Your task to perform on an android device: Add dell alienware to the cart on amazon Image 0: 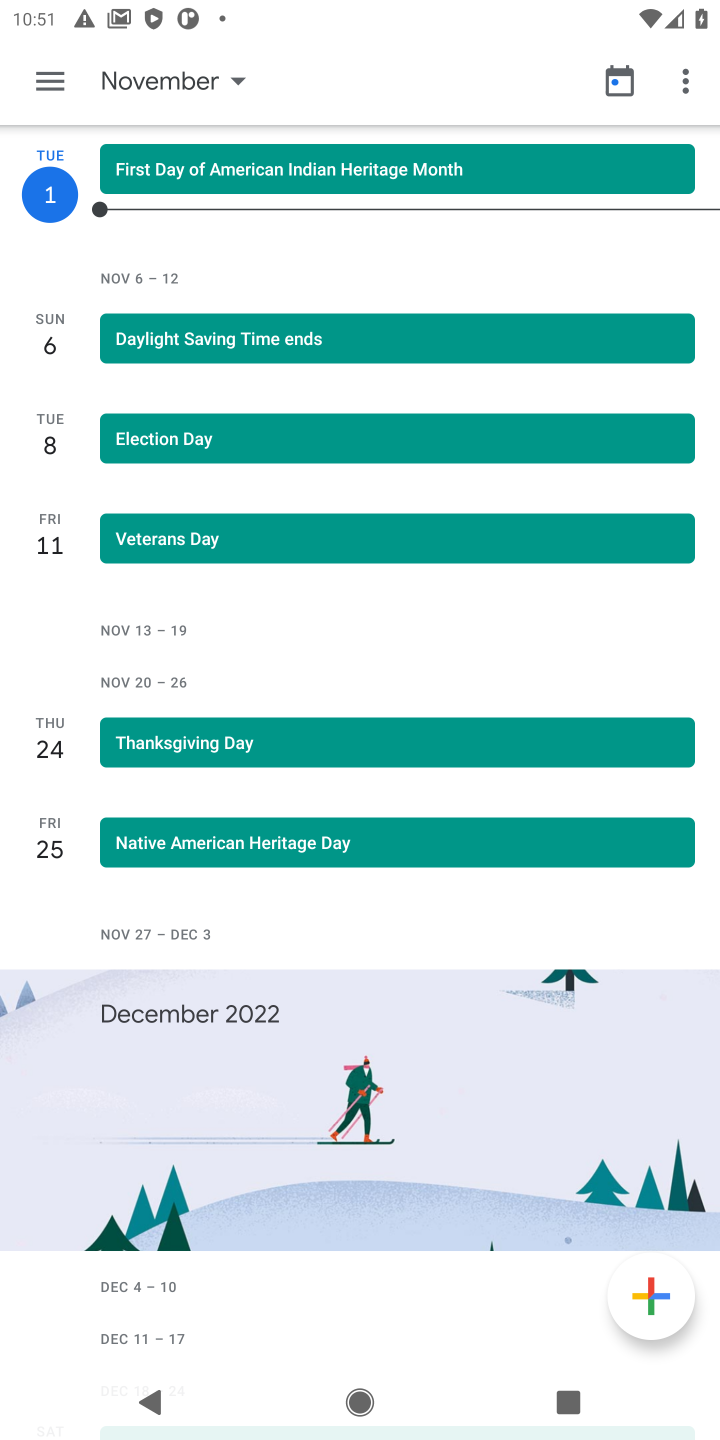
Step 0: press home button
Your task to perform on an android device: Add dell alienware to the cart on amazon Image 1: 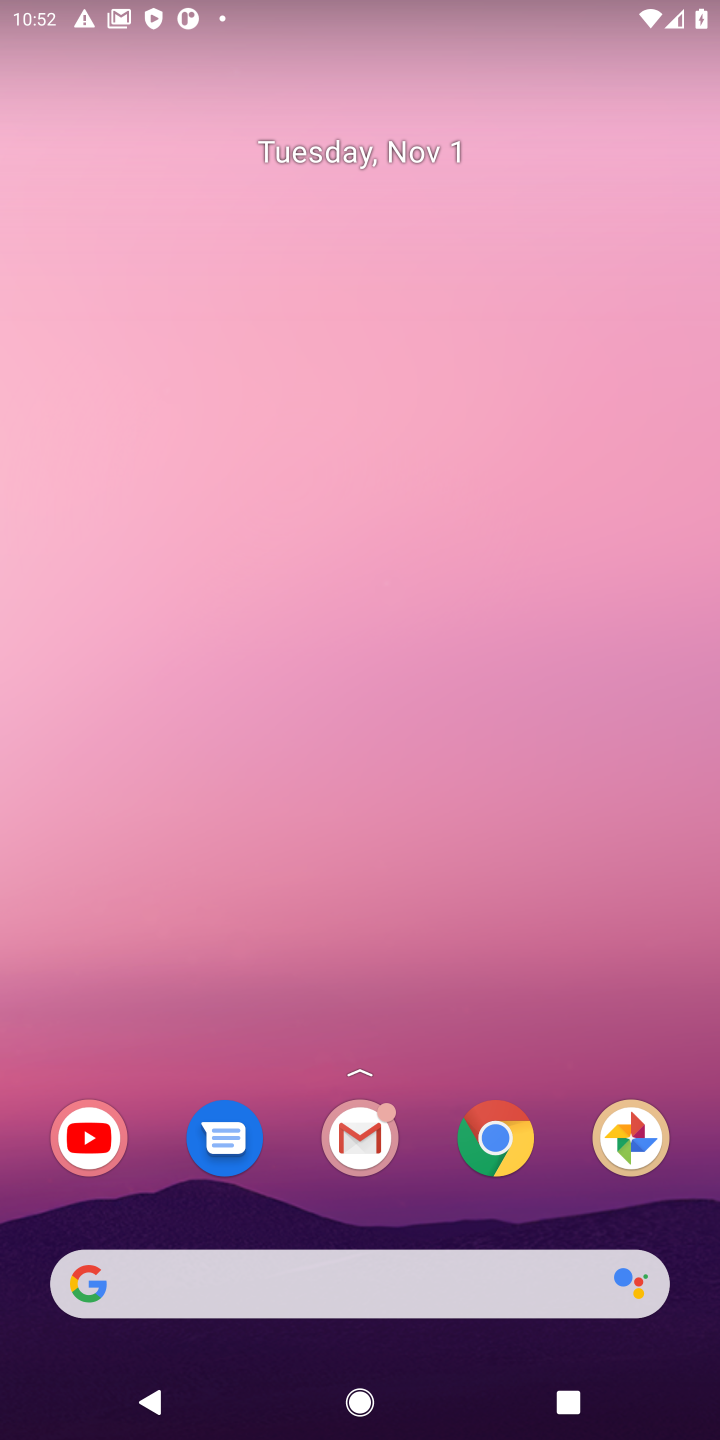
Step 1: click (498, 1136)
Your task to perform on an android device: Add dell alienware to the cart on amazon Image 2: 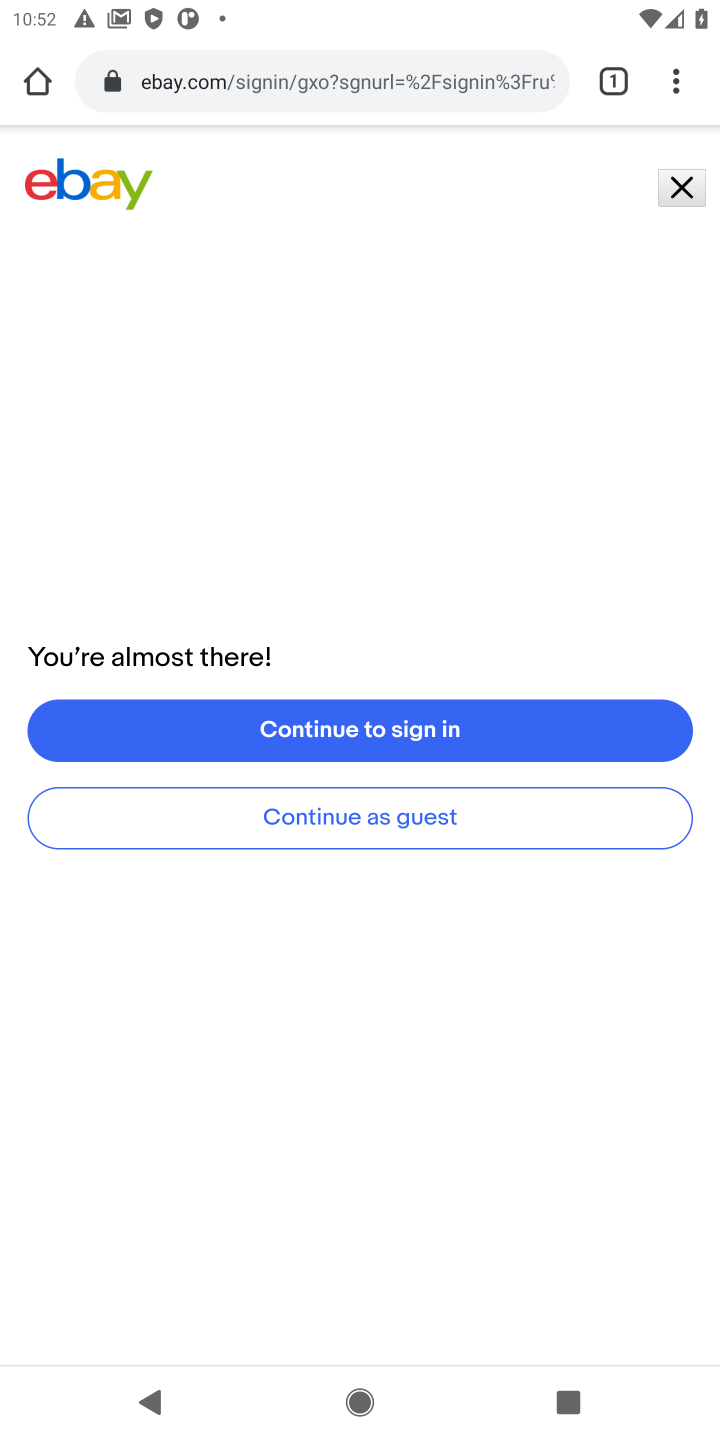
Step 2: click (305, 76)
Your task to perform on an android device: Add dell alienware to the cart on amazon Image 3: 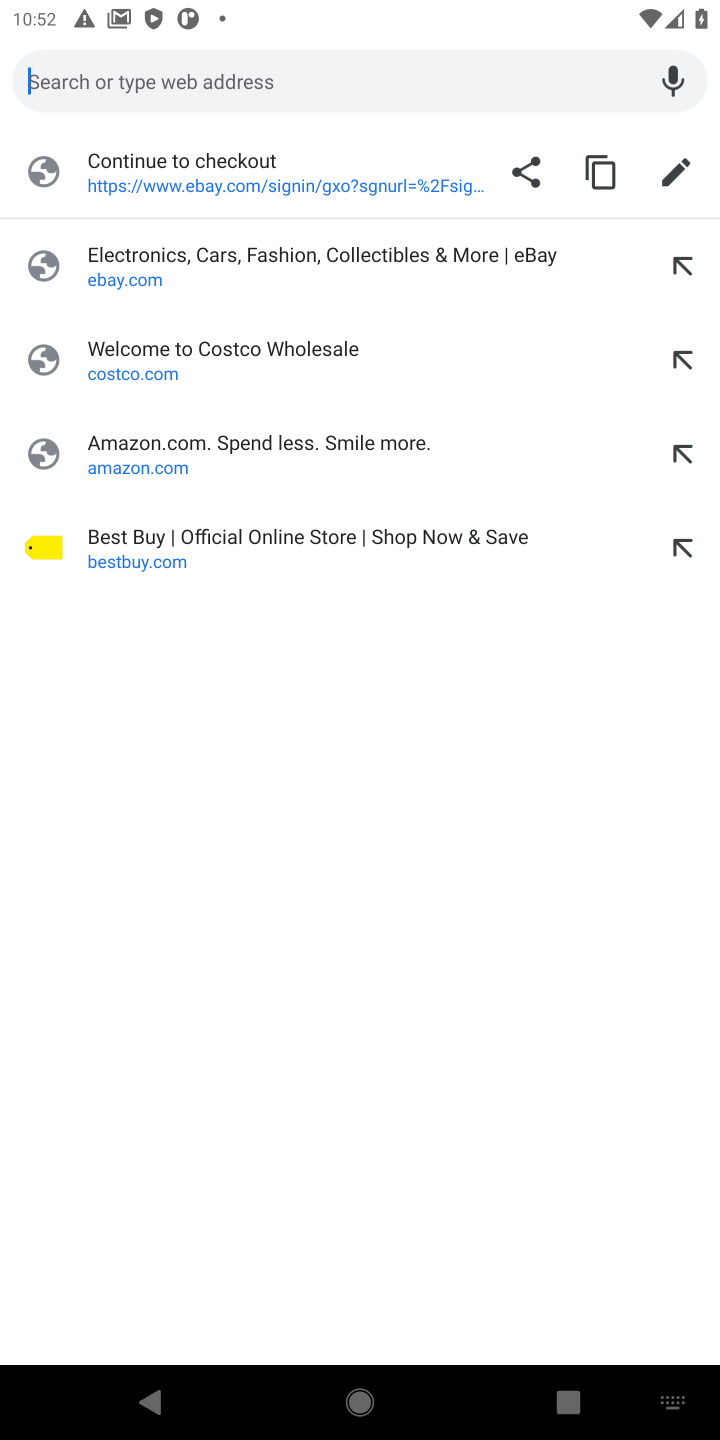
Step 3: click (151, 465)
Your task to perform on an android device: Add dell alienware to the cart on amazon Image 4: 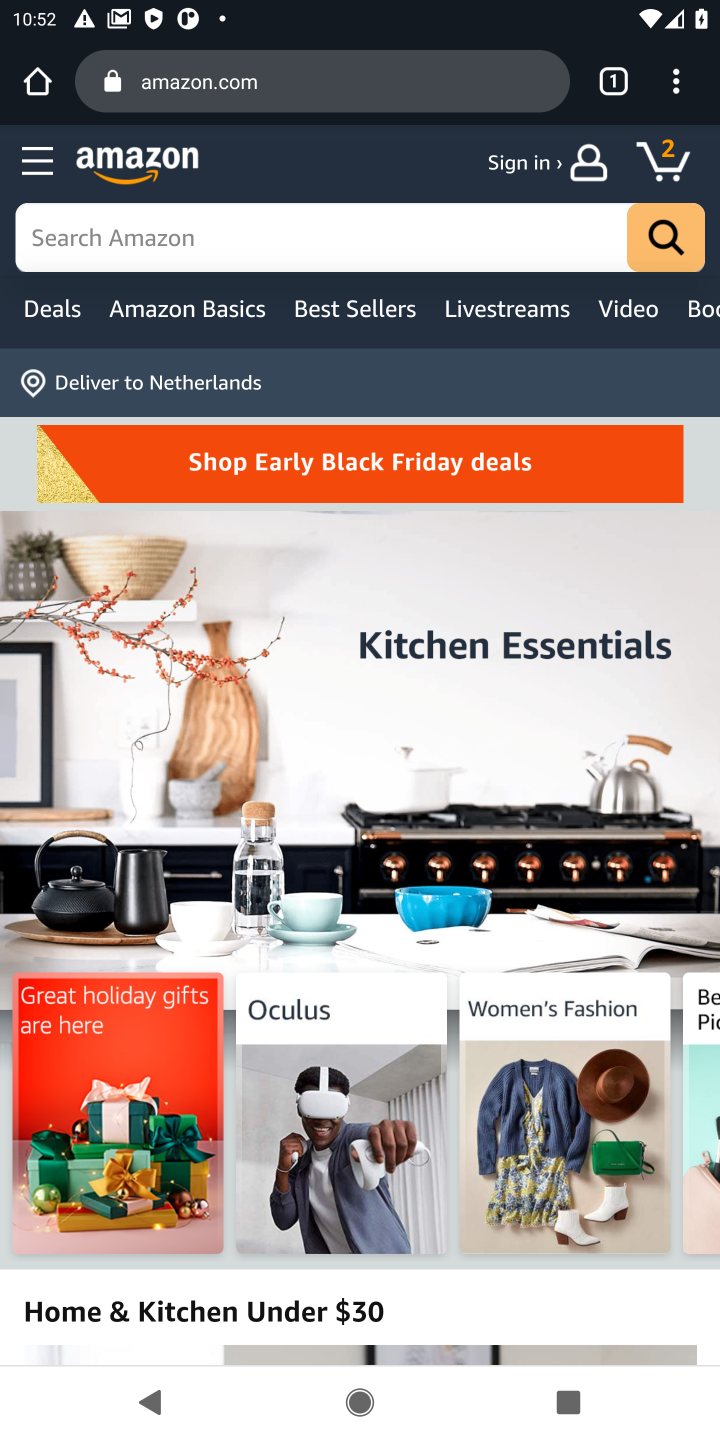
Step 4: click (563, 230)
Your task to perform on an android device: Add dell alienware to the cart on amazon Image 5: 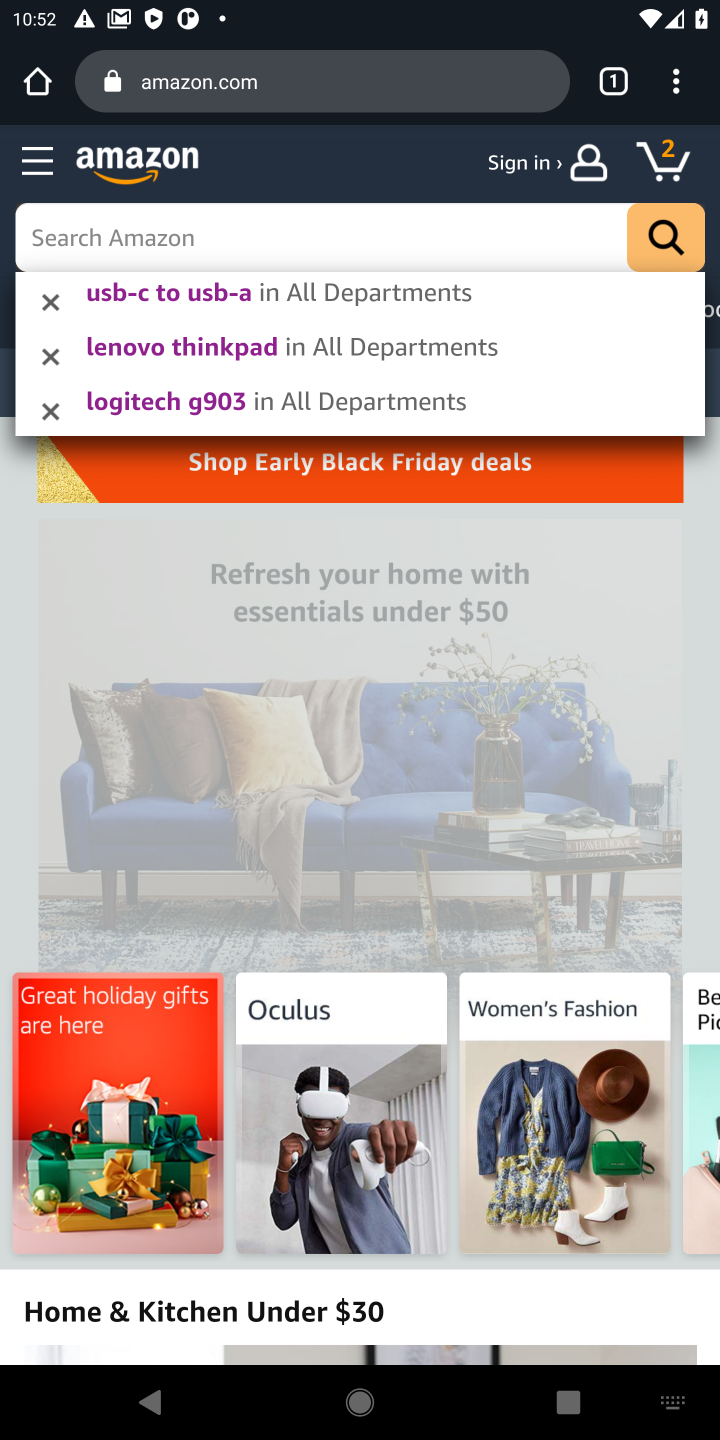
Step 5: type "dell alienware"
Your task to perform on an android device: Add dell alienware to the cart on amazon Image 6: 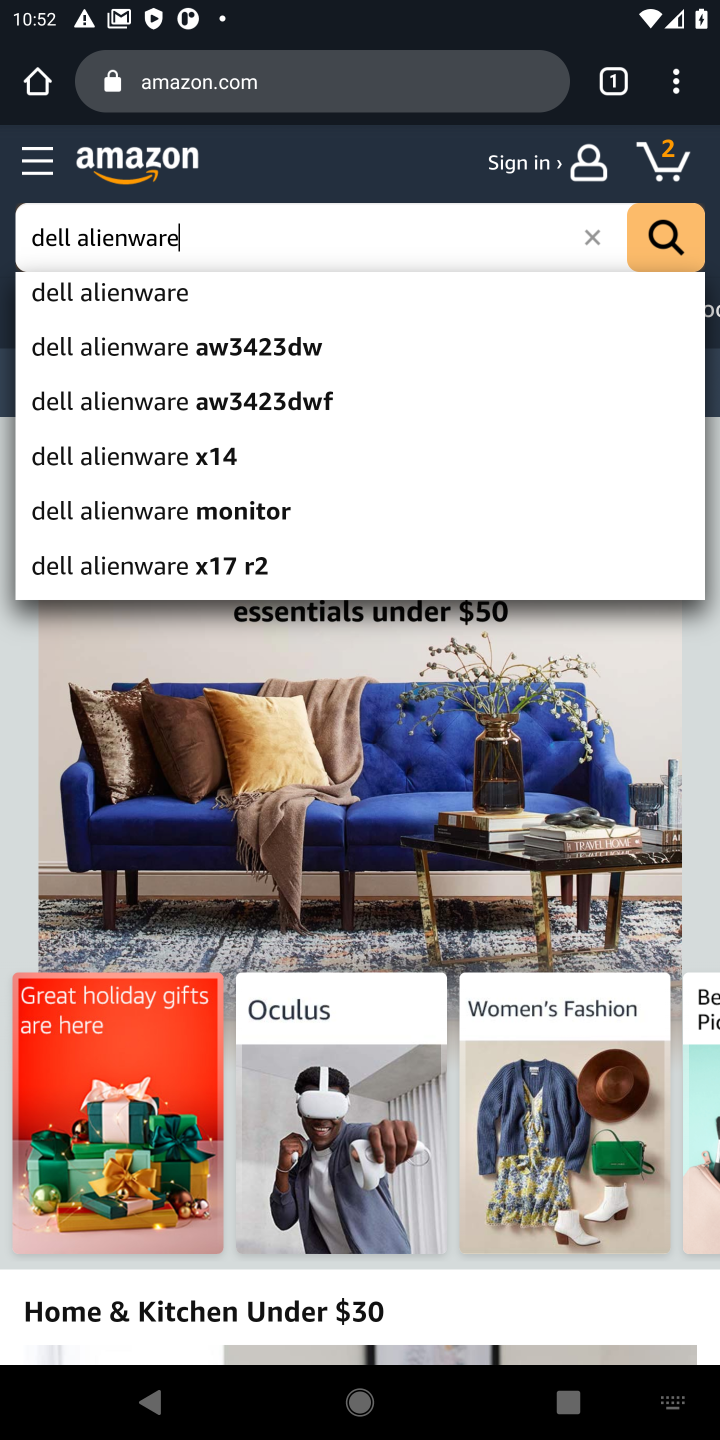
Step 6: click (73, 294)
Your task to perform on an android device: Add dell alienware to the cart on amazon Image 7: 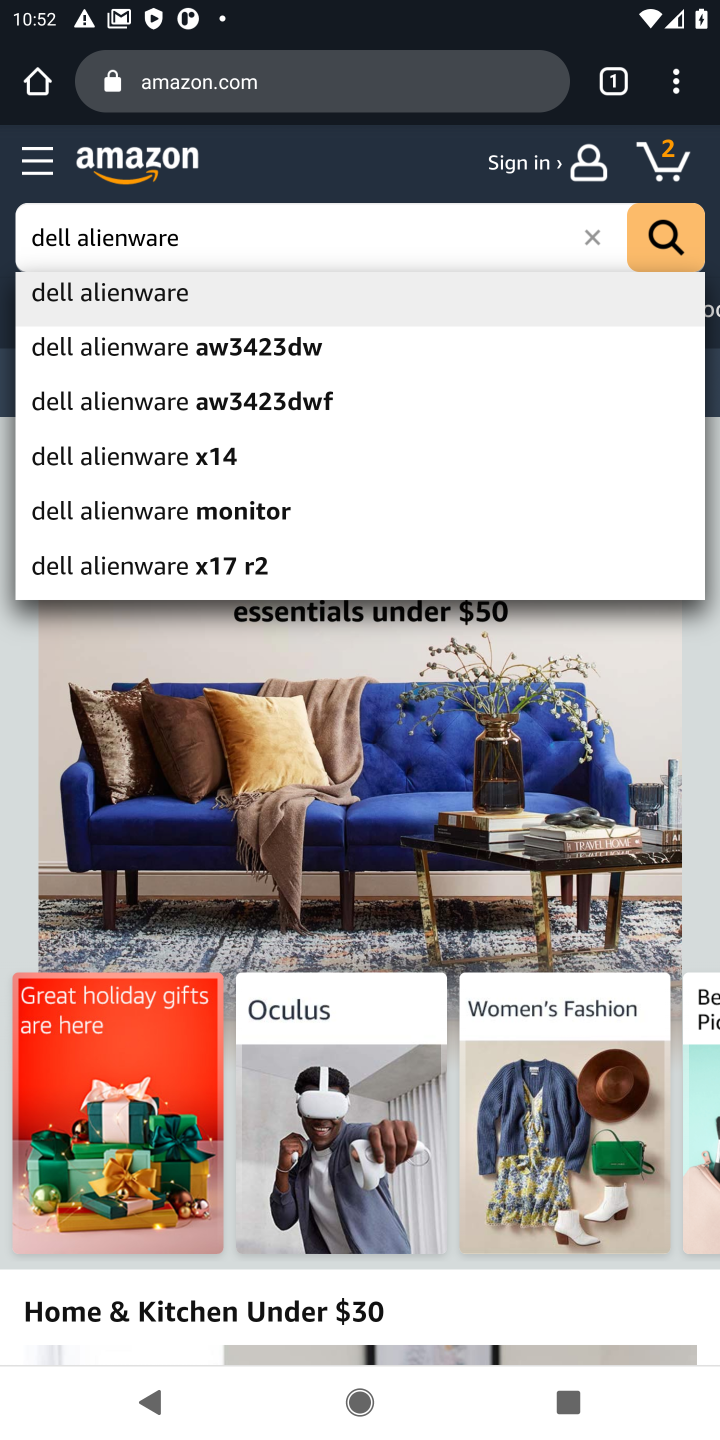
Step 7: click (165, 299)
Your task to perform on an android device: Add dell alienware to the cart on amazon Image 8: 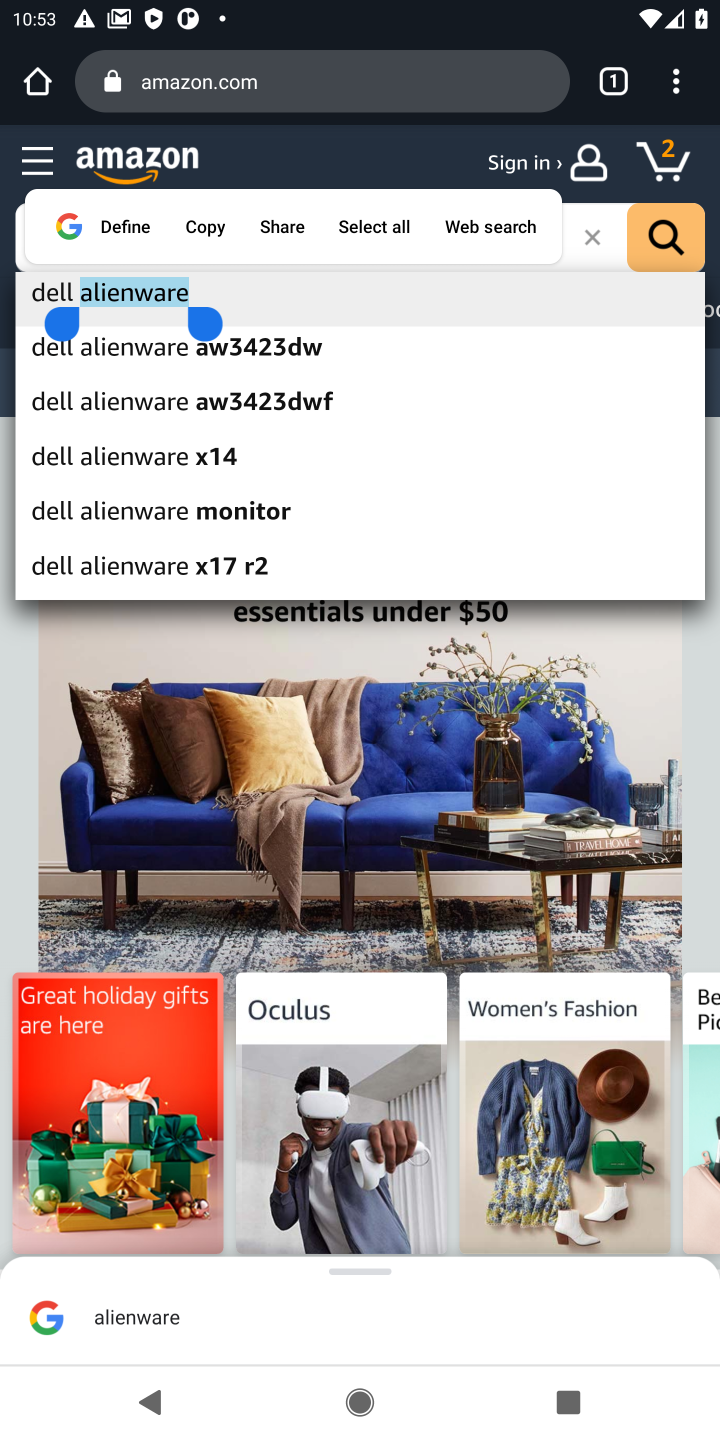
Step 8: click (135, 305)
Your task to perform on an android device: Add dell alienware to the cart on amazon Image 9: 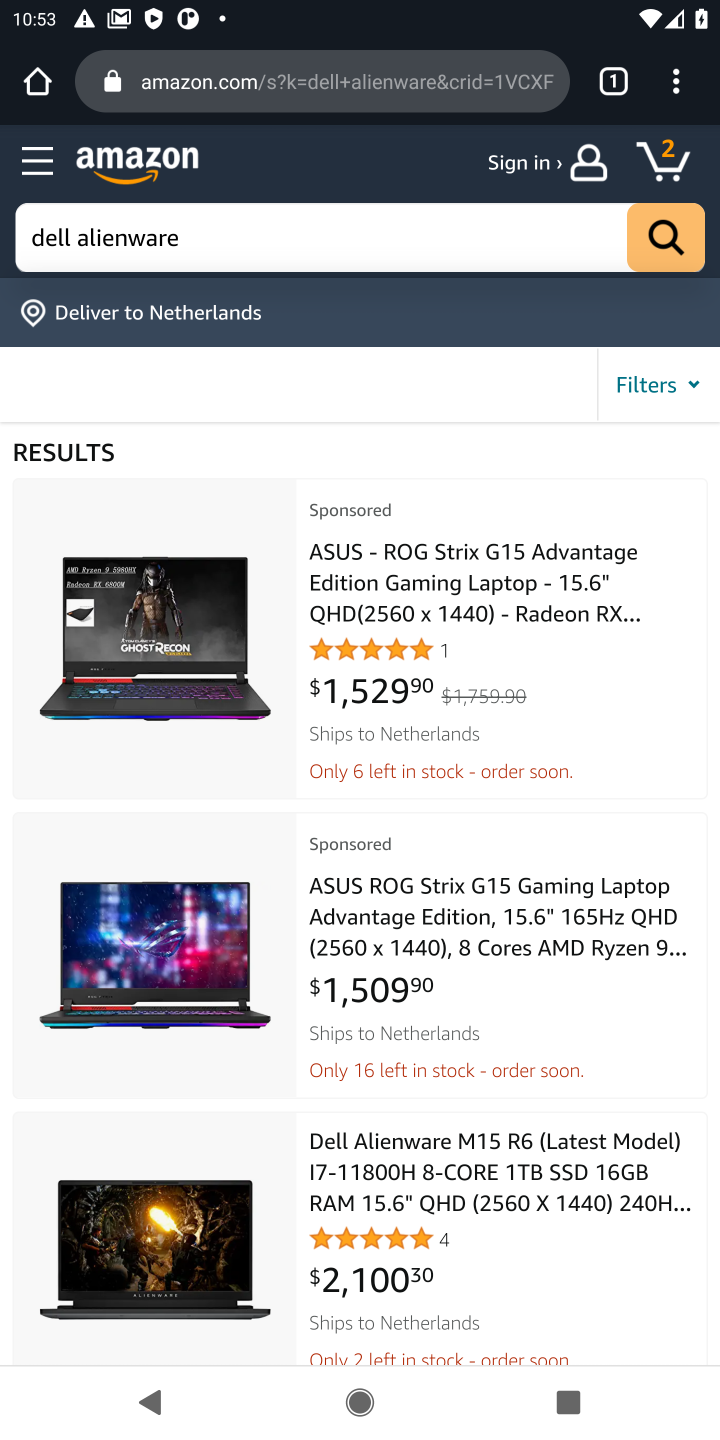
Step 9: click (675, 244)
Your task to perform on an android device: Add dell alienware to the cart on amazon Image 10: 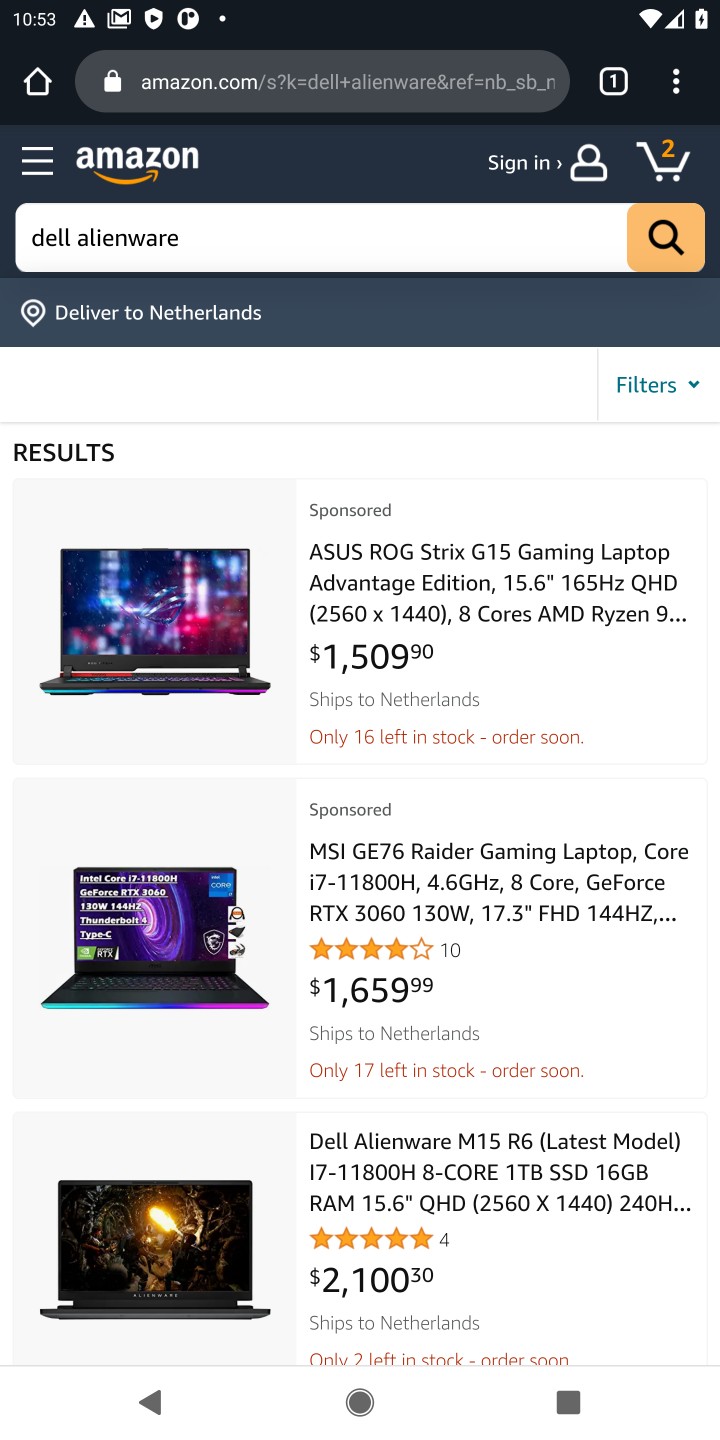
Step 10: click (248, 1257)
Your task to perform on an android device: Add dell alienware to the cart on amazon Image 11: 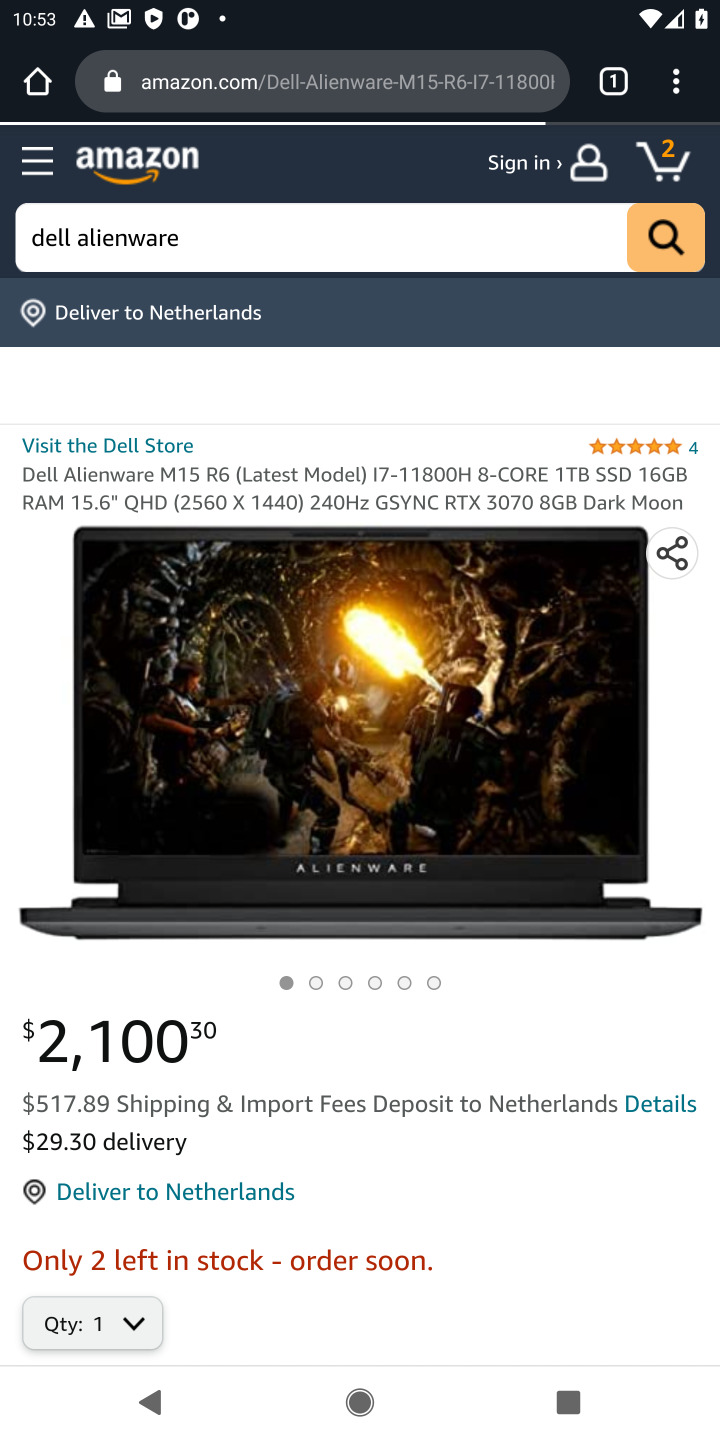
Step 11: drag from (257, 1205) to (338, 527)
Your task to perform on an android device: Add dell alienware to the cart on amazon Image 12: 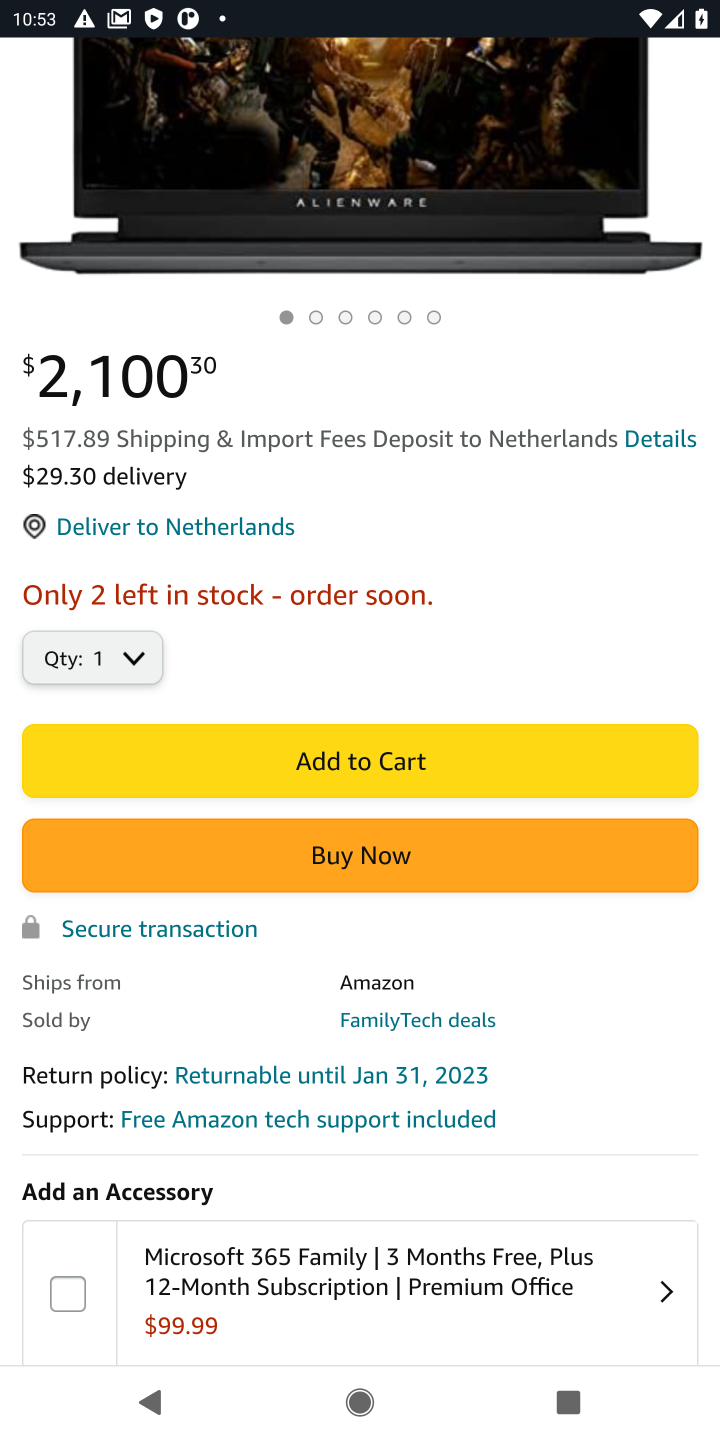
Step 12: click (309, 774)
Your task to perform on an android device: Add dell alienware to the cart on amazon Image 13: 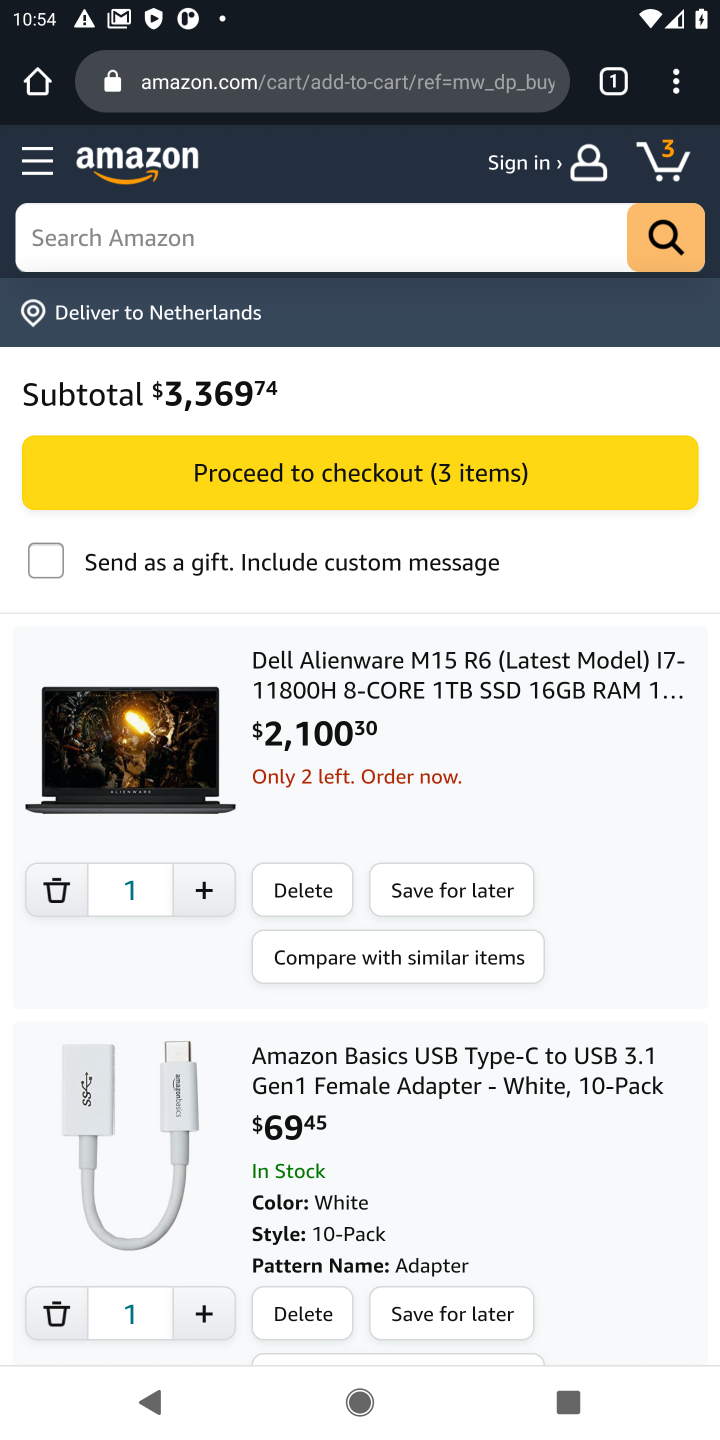
Step 13: task complete